Your task to perform on an android device: Go to ESPN.com Image 0: 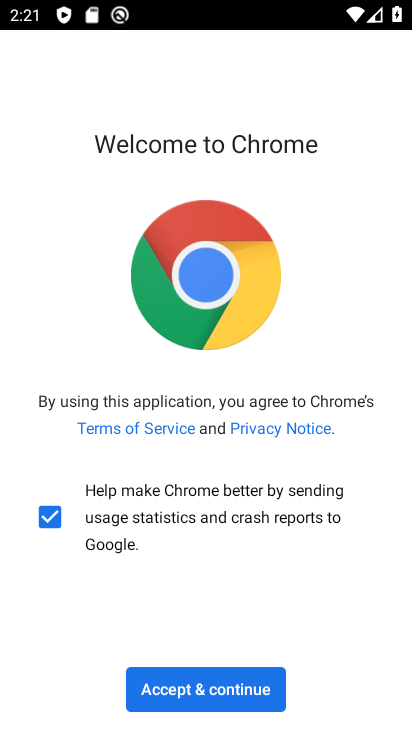
Step 0: press home button
Your task to perform on an android device: Go to ESPN.com Image 1: 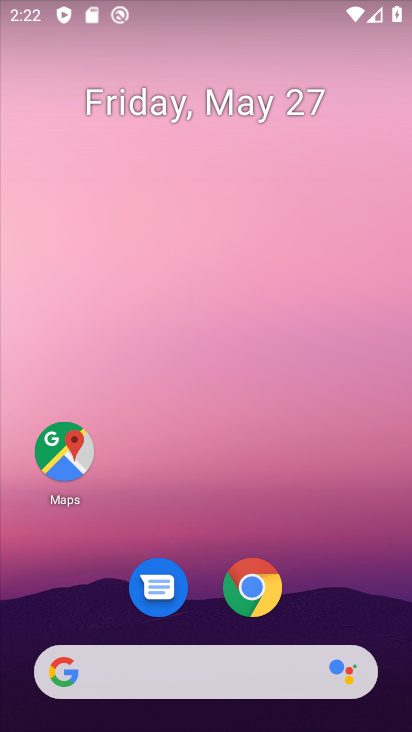
Step 1: click (44, 682)
Your task to perform on an android device: Go to ESPN.com Image 2: 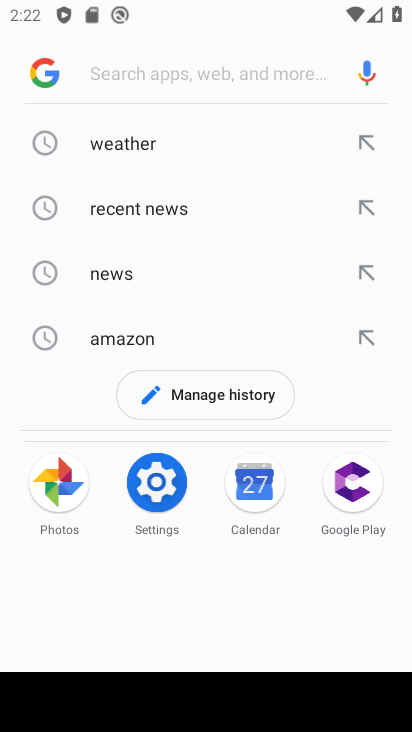
Step 2: type "ESPN.com"
Your task to perform on an android device: Go to ESPN.com Image 3: 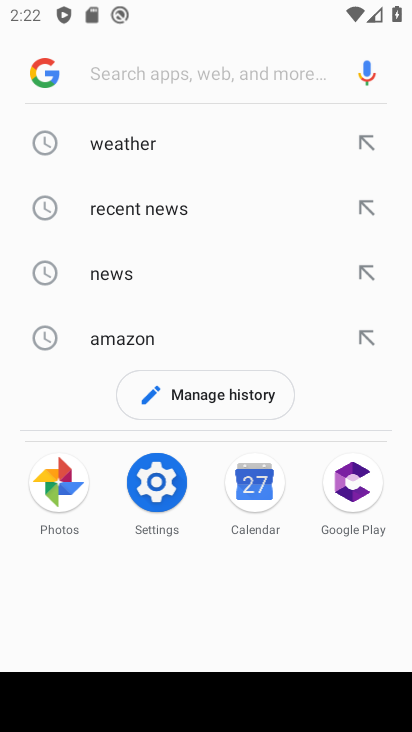
Step 3: click (215, 75)
Your task to perform on an android device: Go to ESPN.com Image 4: 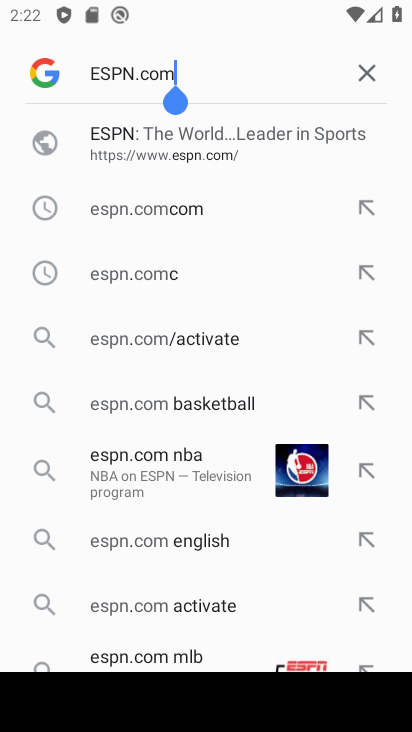
Step 4: click (179, 140)
Your task to perform on an android device: Go to ESPN.com Image 5: 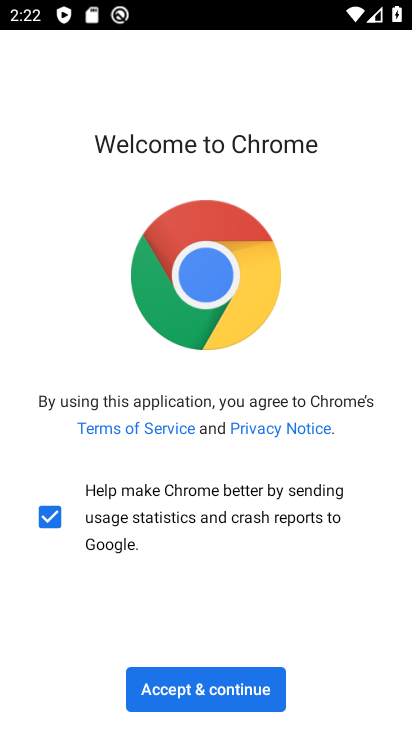
Step 5: click (199, 696)
Your task to perform on an android device: Go to ESPN.com Image 6: 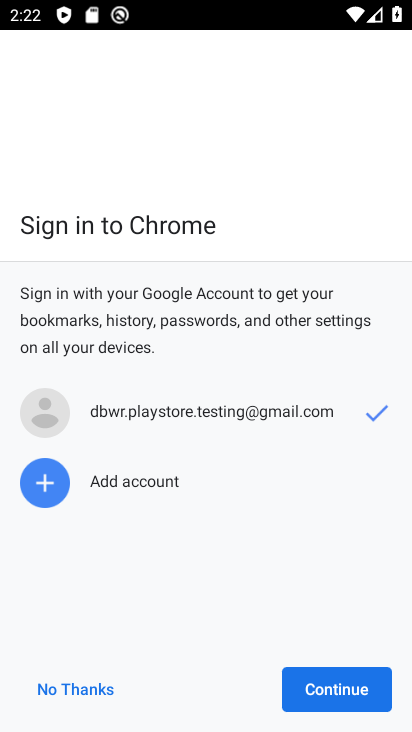
Step 6: click (334, 702)
Your task to perform on an android device: Go to ESPN.com Image 7: 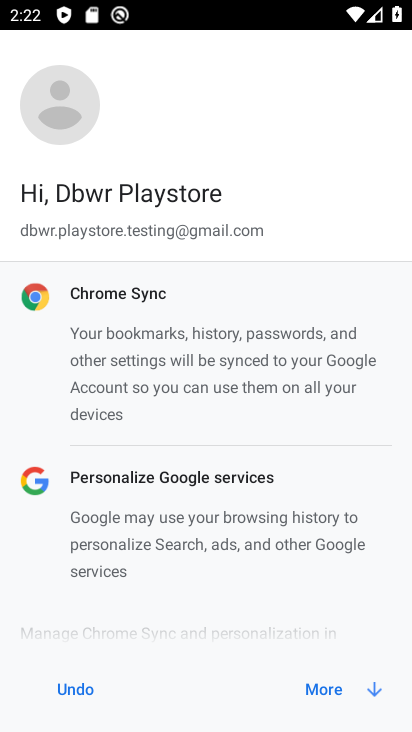
Step 7: click (334, 694)
Your task to perform on an android device: Go to ESPN.com Image 8: 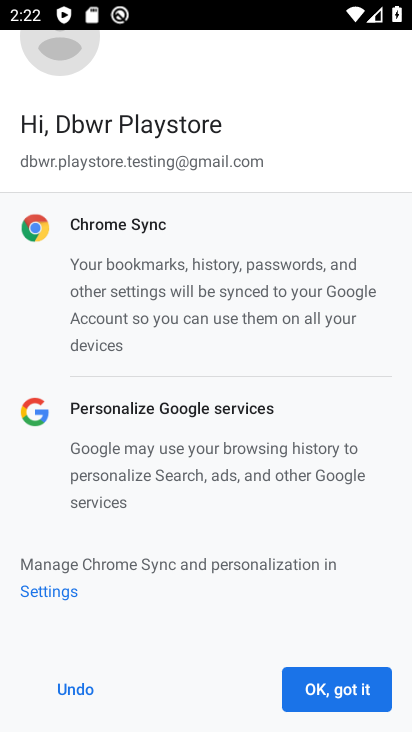
Step 8: click (334, 693)
Your task to perform on an android device: Go to ESPN.com Image 9: 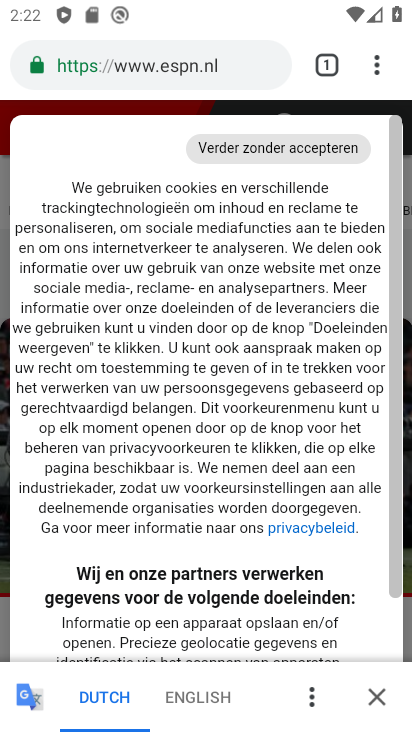
Step 9: task complete